Your task to perform on an android device: What is the news today? Image 0: 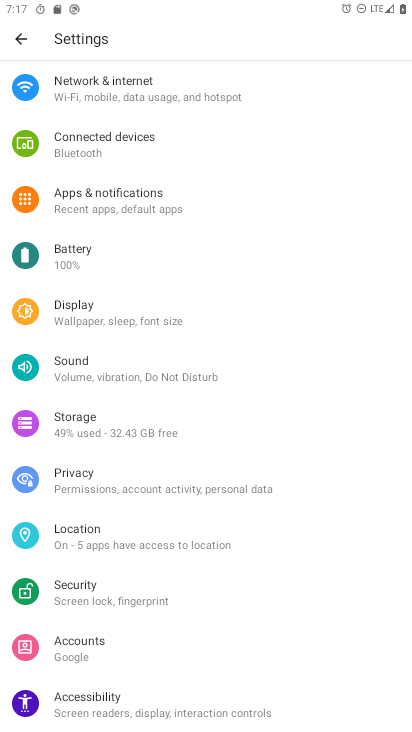
Step 0: press home button
Your task to perform on an android device: What is the news today? Image 1: 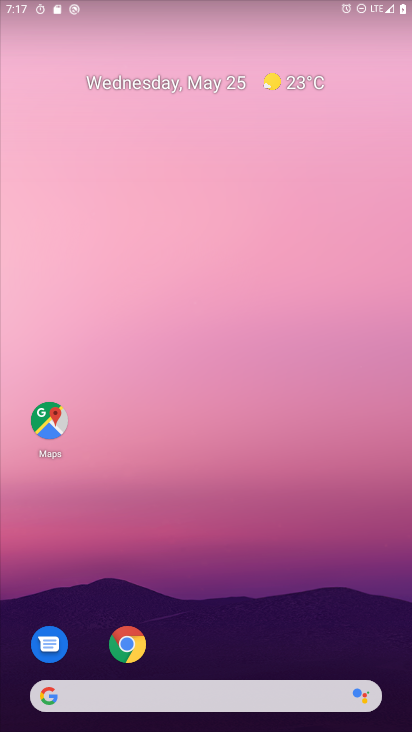
Step 1: drag from (268, 621) to (236, 1)
Your task to perform on an android device: What is the news today? Image 2: 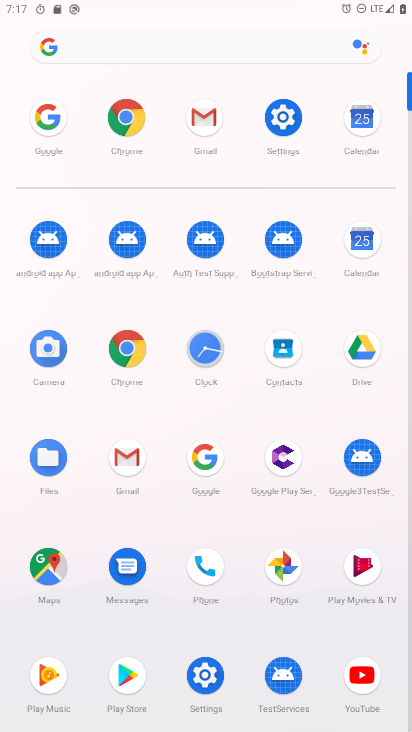
Step 2: click (206, 465)
Your task to perform on an android device: What is the news today? Image 3: 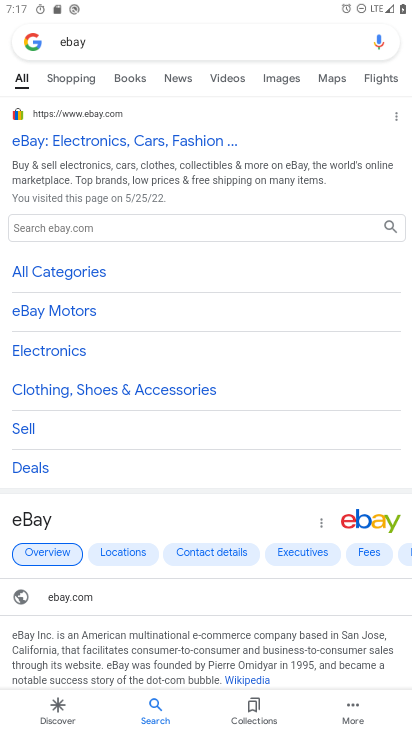
Step 3: press back button
Your task to perform on an android device: What is the news today? Image 4: 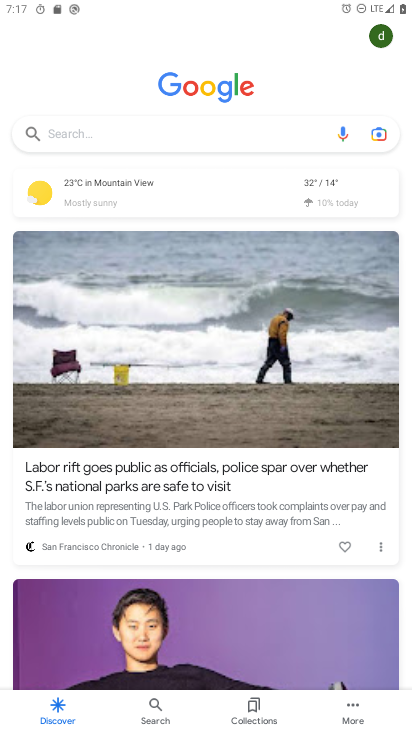
Step 4: click (153, 134)
Your task to perform on an android device: What is the news today? Image 5: 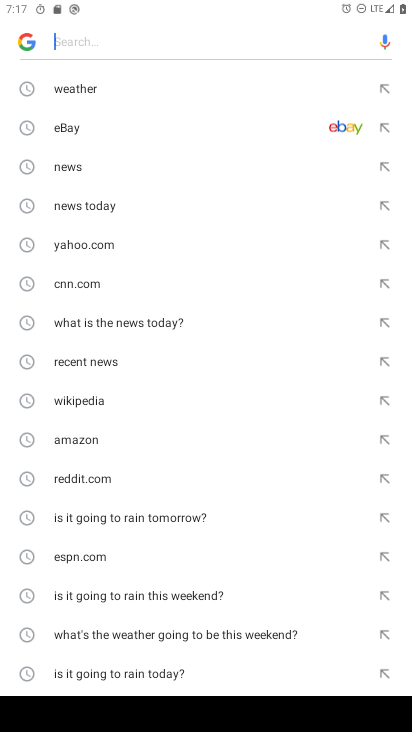
Step 5: click (146, 326)
Your task to perform on an android device: What is the news today? Image 6: 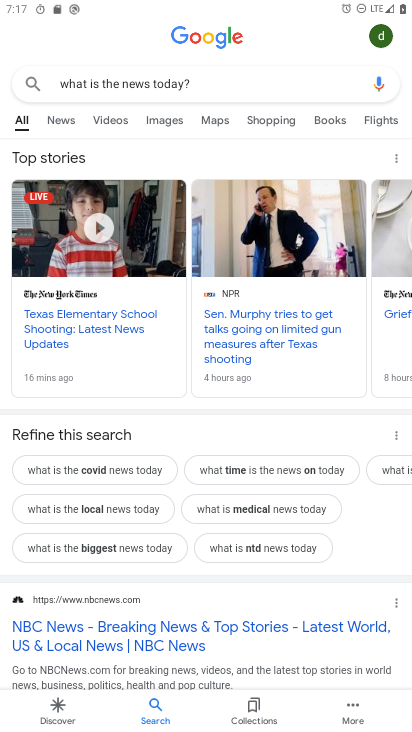
Step 6: task complete